Your task to perform on an android device: delete a single message in the gmail app Image 0: 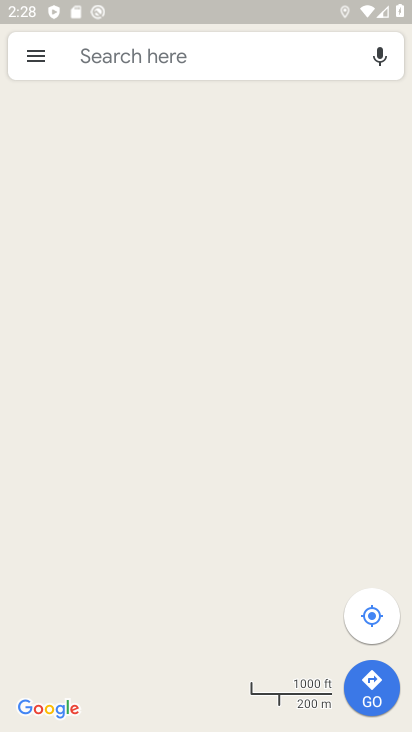
Step 0: press home button
Your task to perform on an android device: delete a single message in the gmail app Image 1: 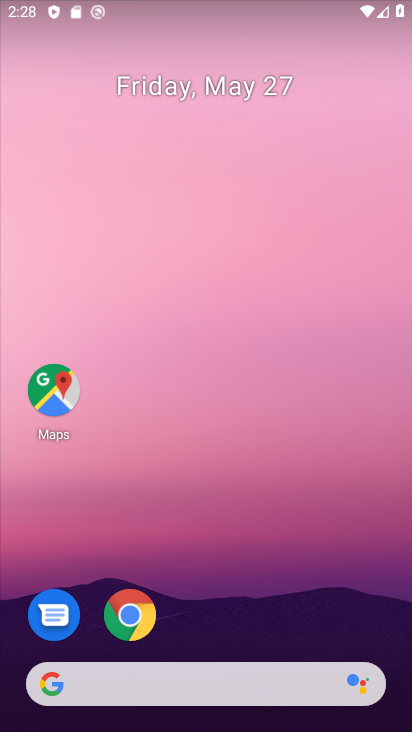
Step 1: drag from (245, 700) to (276, 143)
Your task to perform on an android device: delete a single message in the gmail app Image 2: 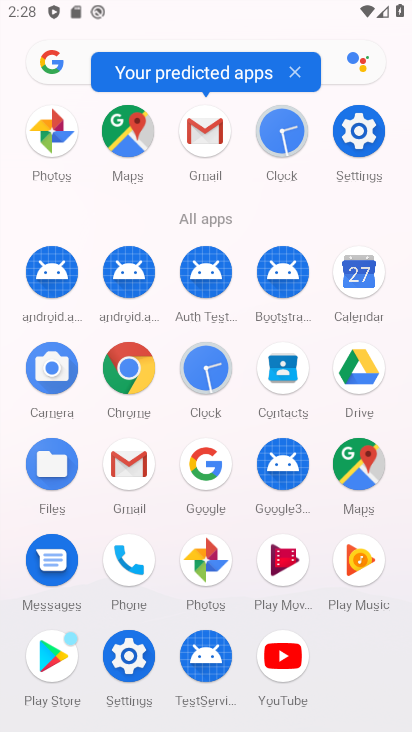
Step 2: click (130, 460)
Your task to perform on an android device: delete a single message in the gmail app Image 3: 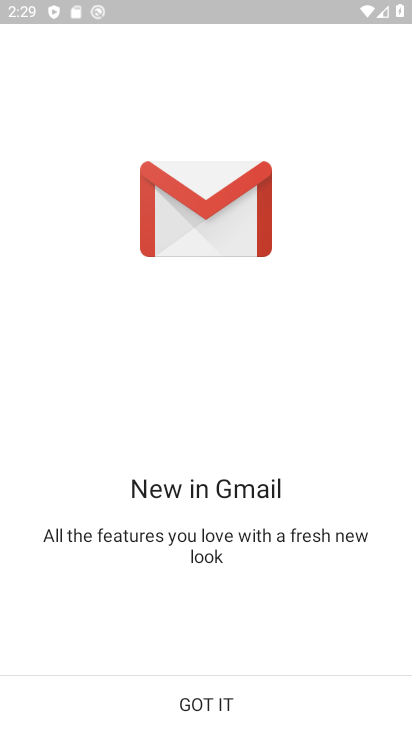
Step 3: click (218, 701)
Your task to perform on an android device: delete a single message in the gmail app Image 4: 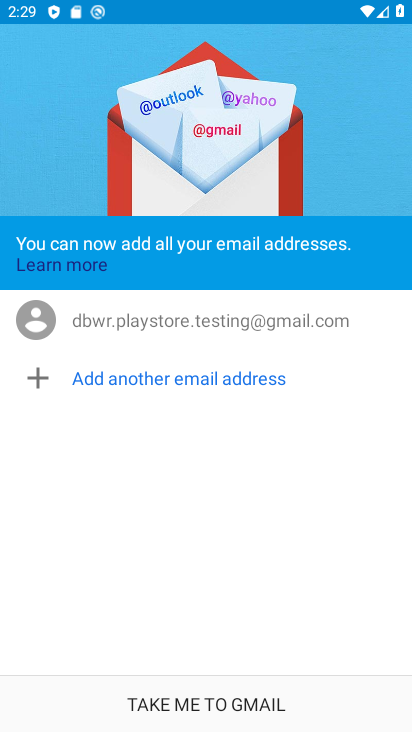
Step 4: click (220, 705)
Your task to perform on an android device: delete a single message in the gmail app Image 5: 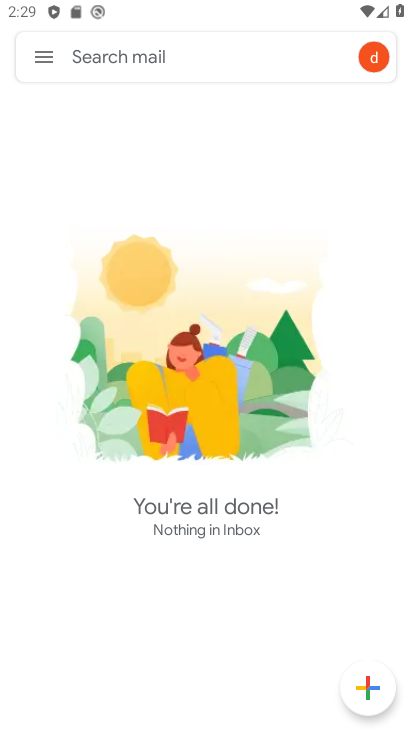
Step 5: task complete